Your task to perform on an android device: Open Amazon Image 0: 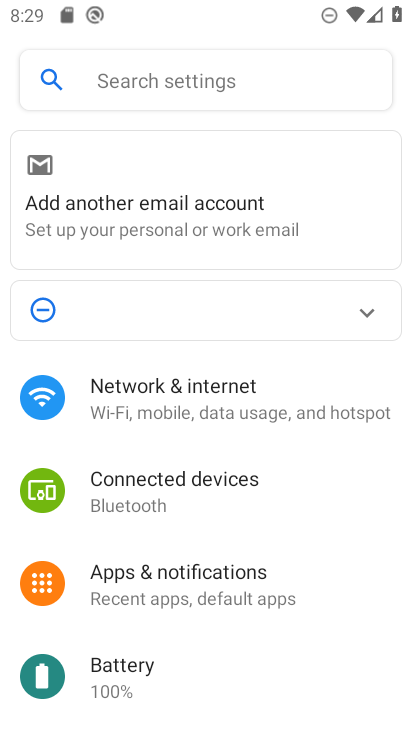
Step 0: press home button
Your task to perform on an android device: Open Amazon Image 1: 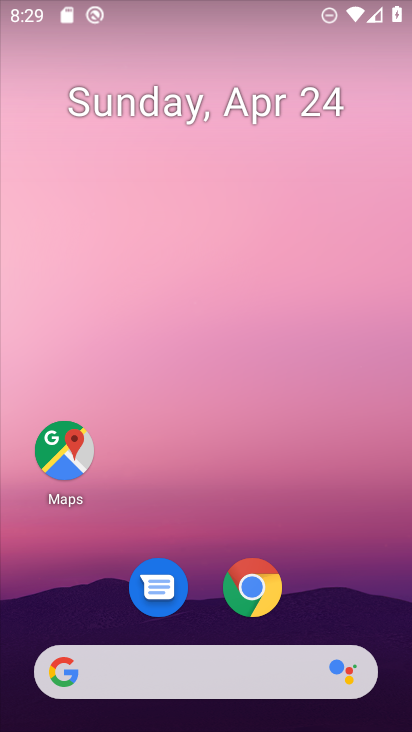
Step 1: drag from (334, 602) to (321, 94)
Your task to perform on an android device: Open Amazon Image 2: 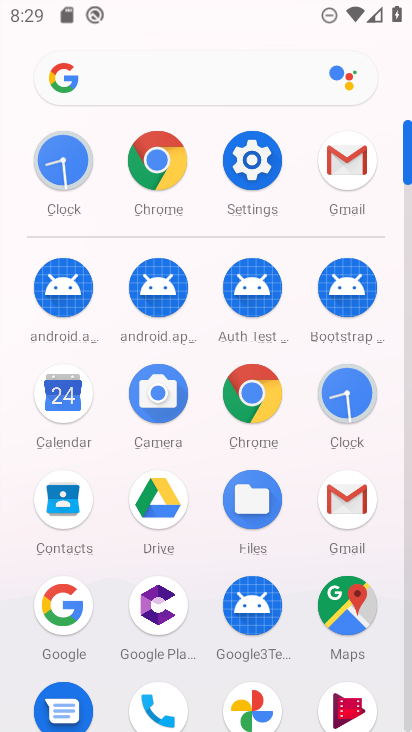
Step 2: click (162, 183)
Your task to perform on an android device: Open Amazon Image 3: 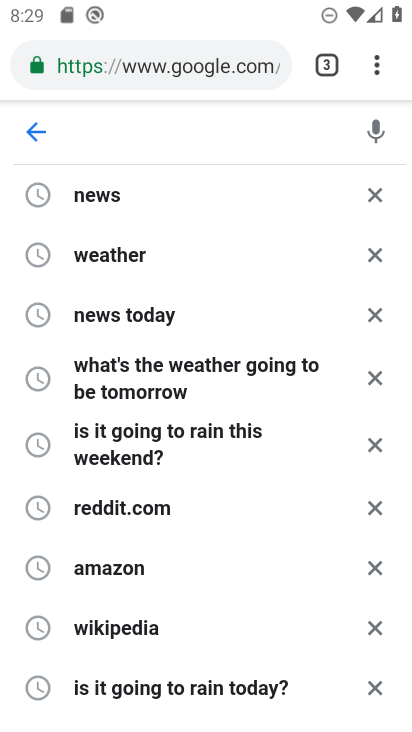
Step 3: click (247, 143)
Your task to perform on an android device: Open Amazon Image 4: 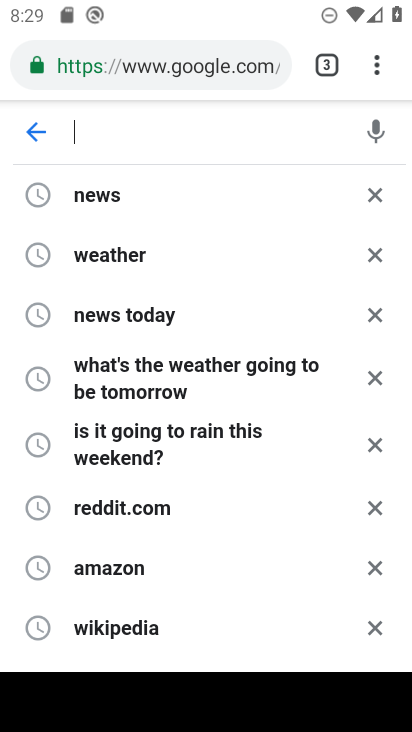
Step 4: type "amazon"
Your task to perform on an android device: Open Amazon Image 5: 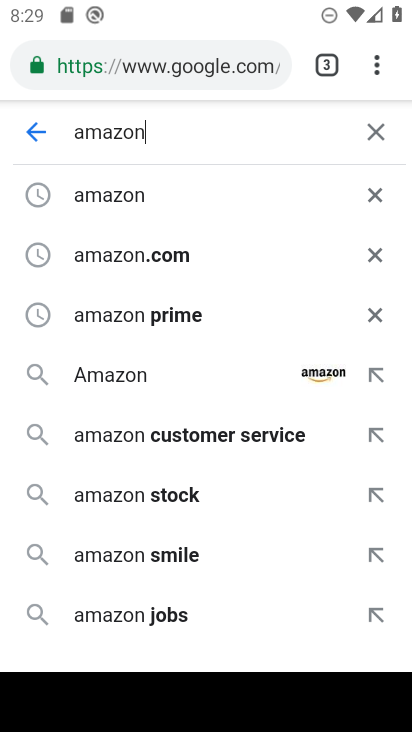
Step 5: click (92, 211)
Your task to perform on an android device: Open Amazon Image 6: 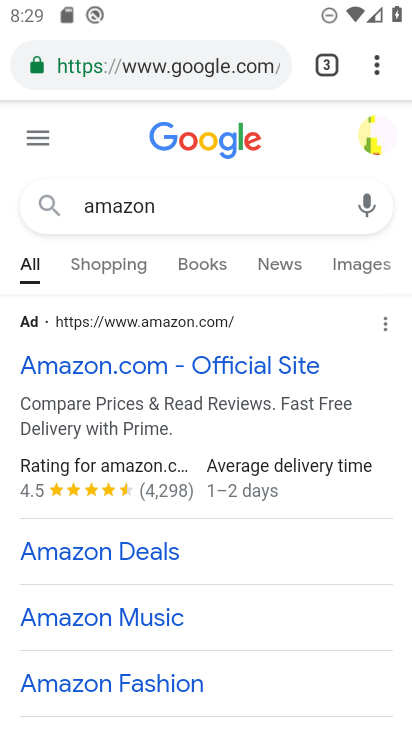
Step 6: click (134, 373)
Your task to perform on an android device: Open Amazon Image 7: 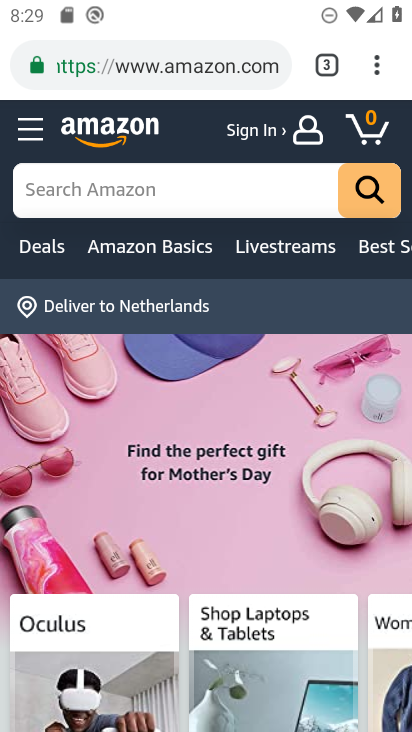
Step 7: task complete